Your task to perform on an android device: toggle show notifications on the lock screen Image 0: 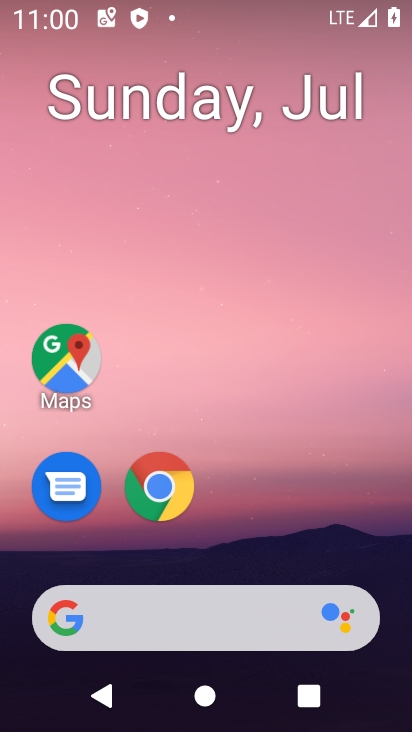
Step 0: press home button
Your task to perform on an android device: toggle show notifications on the lock screen Image 1: 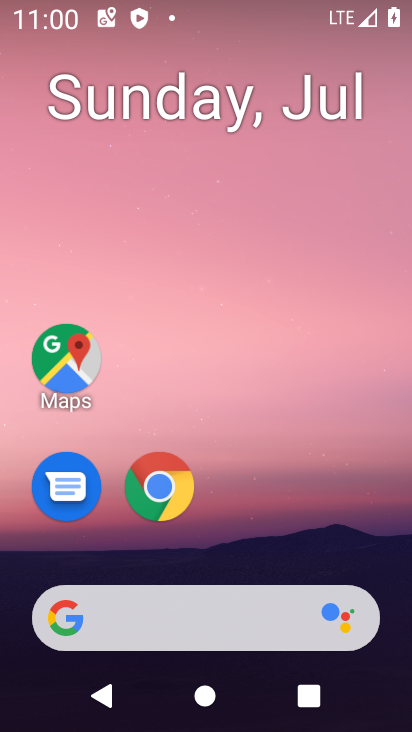
Step 1: drag from (375, 526) to (377, 40)
Your task to perform on an android device: toggle show notifications on the lock screen Image 2: 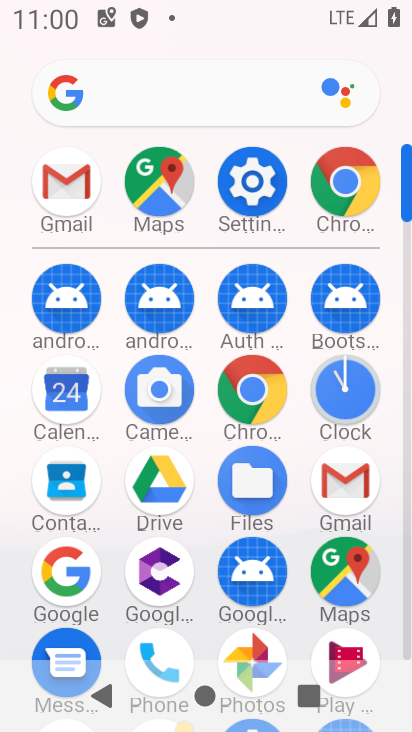
Step 2: click (257, 188)
Your task to perform on an android device: toggle show notifications on the lock screen Image 3: 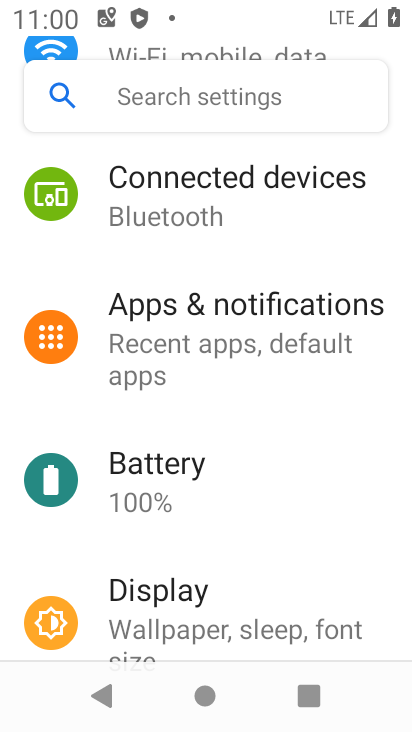
Step 3: drag from (343, 478) to (342, 365)
Your task to perform on an android device: toggle show notifications on the lock screen Image 4: 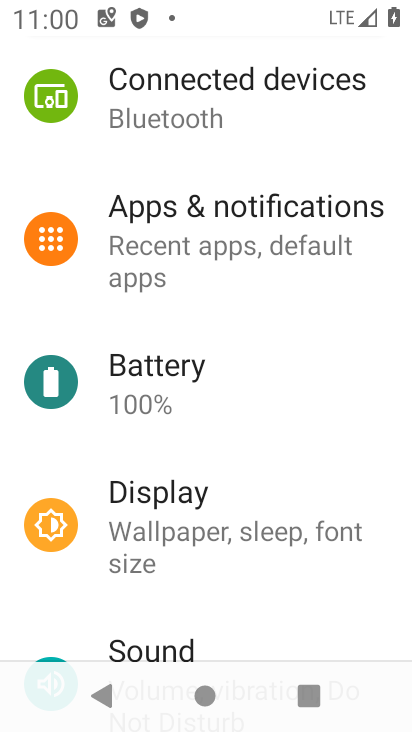
Step 4: drag from (343, 578) to (342, 459)
Your task to perform on an android device: toggle show notifications on the lock screen Image 5: 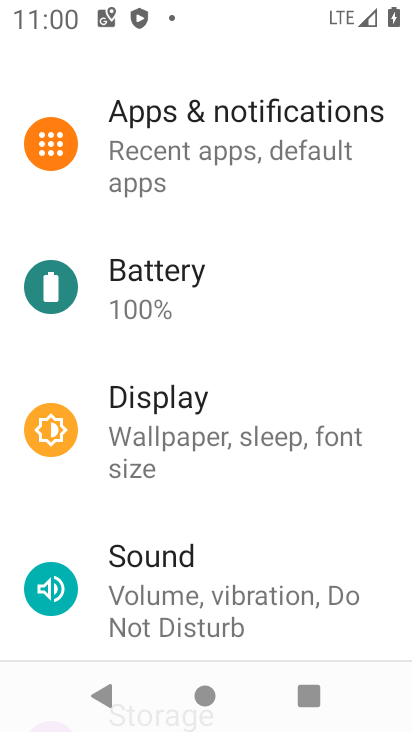
Step 5: drag from (364, 630) to (356, 433)
Your task to perform on an android device: toggle show notifications on the lock screen Image 6: 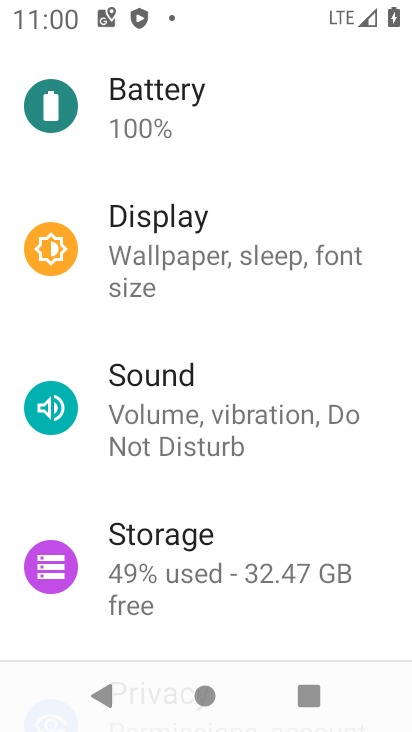
Step 6: drag from (355, 625) to (359, 472)
Your task to perform on an android device: toggle show notifications on the lock screen Image 7: 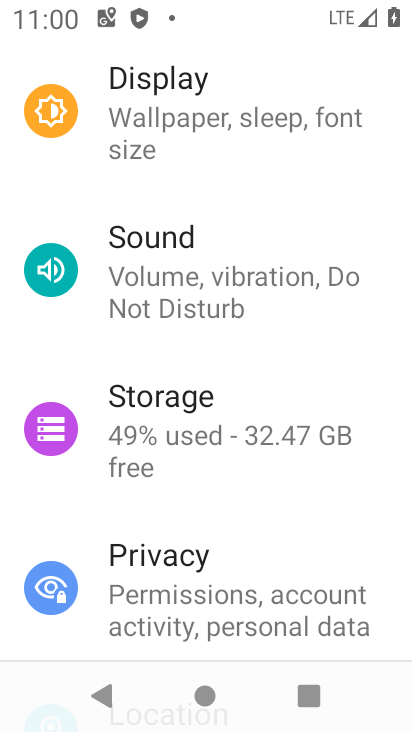
Step 7: drag from (385, 186) to (365, 325)
Your task to perform on an android device: toggle show notifications on the lock screen Image 8: 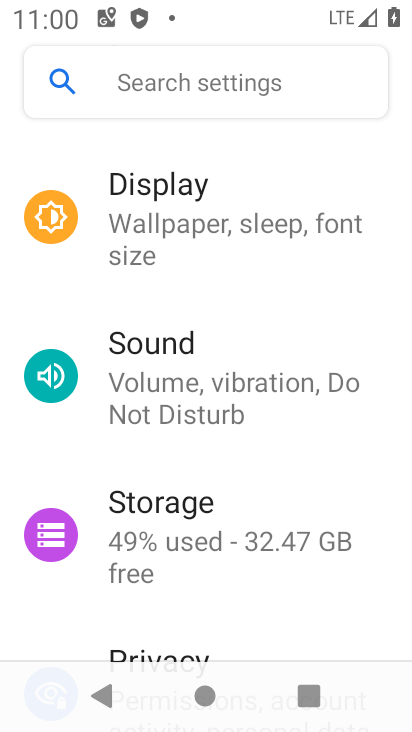
Step 8: drag from (366, 151) to (364, 338)
Your task to perform on an android device: toggle show notifications on the lock screen Image 9: 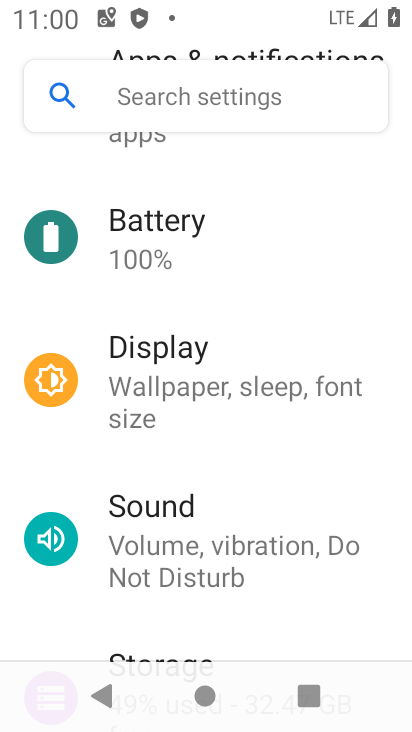
Step 9: drag from (342, 202) to (336, 391)
Your task to perform on an android device: toggle show notifications on the lock screen Image 10: 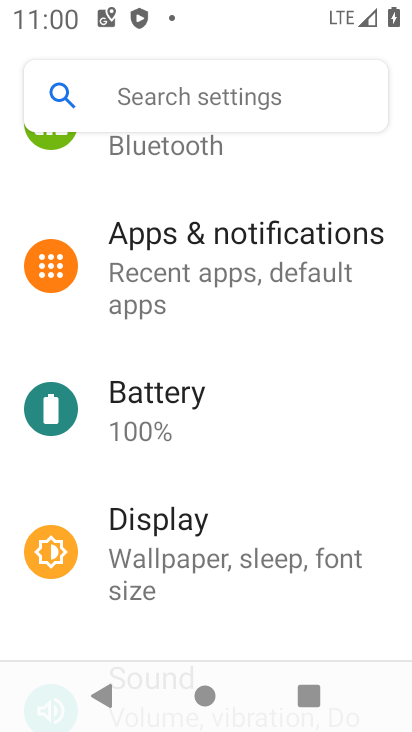
Step 10: drag from (345, 276) to (328, 473)
Your task to perform on an android device: toggle show notifications on the lock screen Image 11: 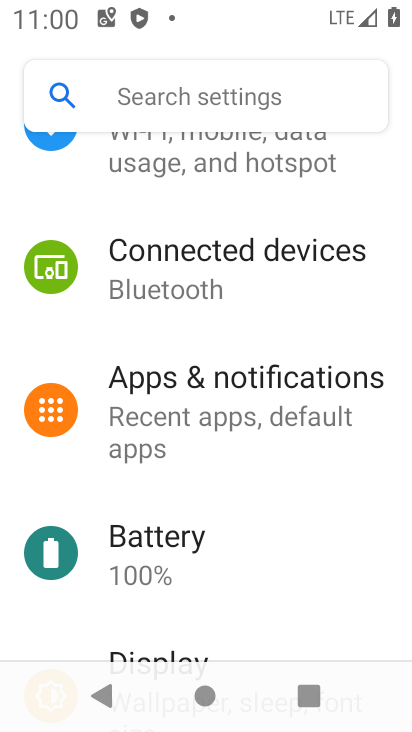
Step 11: drag from (352, 275) to (352, 490)
Your task to perform on an android device: toggle show notifications on the lock screen Image 12: 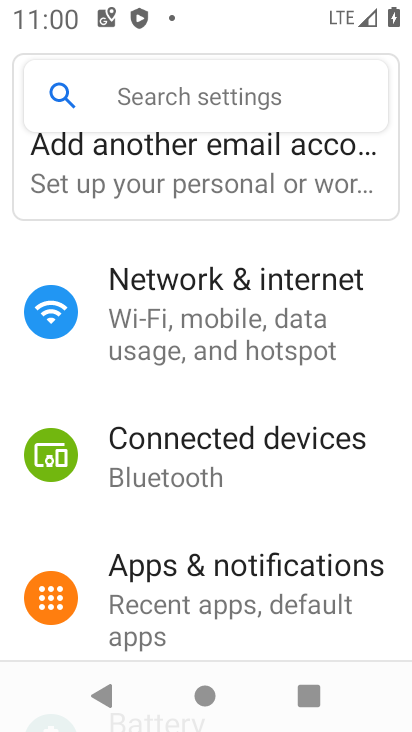
Step 12: drag from (363, 235) to (360, 434)
Your task to perform on an android device: toggle show notifications on the lock screen Image 13: 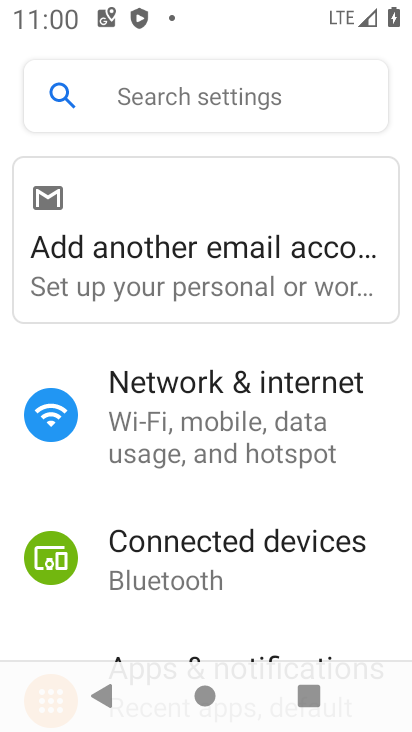
Step 13: drag from (359, 499) to (372, 378)
Your task to perform on an android device: toggle show notifications on the lock screen Image 14: 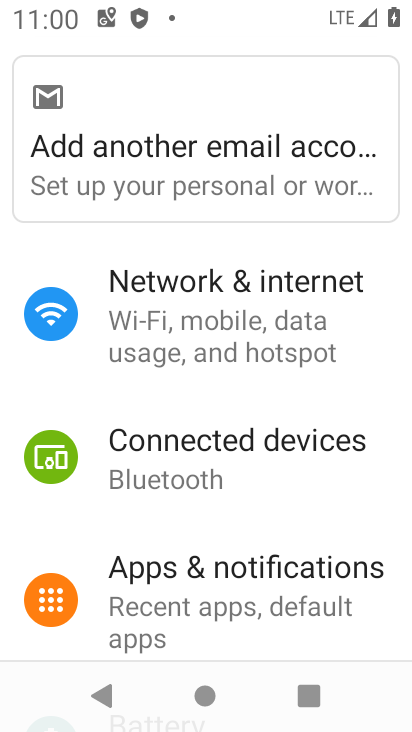
Step 14: drag from (353, 525) to (347, 374)
Your task to perform on an android device: toggle show notifications on the lock screen Image 15: 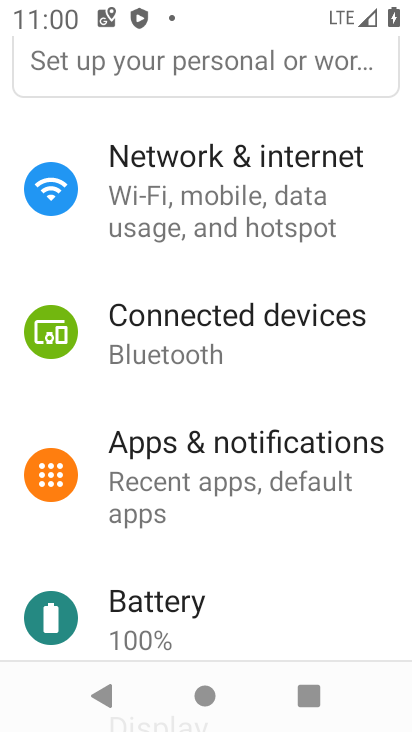
Step 15: drag from (313, 548) to (312, 298)
Your task to perform on an android device: toggle show notifications on the lock screen Image 16: 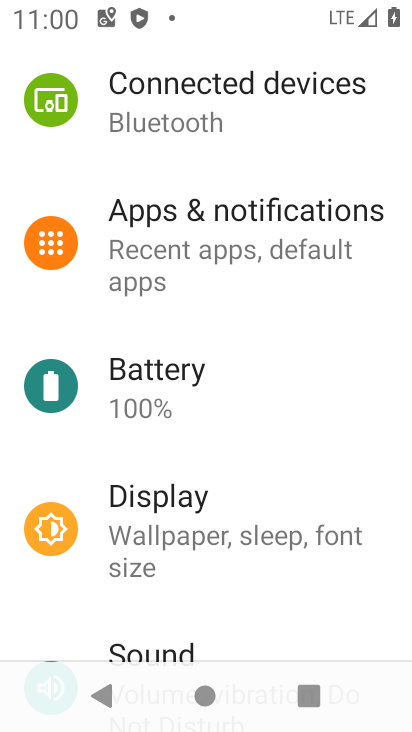
Step 16: click (296, 251)
Your task to perform on an android device: toggle show notifications on the lock screen Image 17: 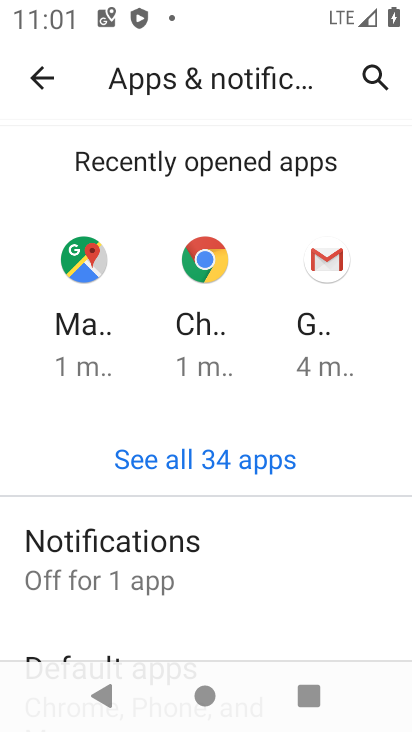
Step 17: drag from (274, 516) to (278, 348)
Your task to perform on an android device: toggle show notifications on the lock screen Image 18: 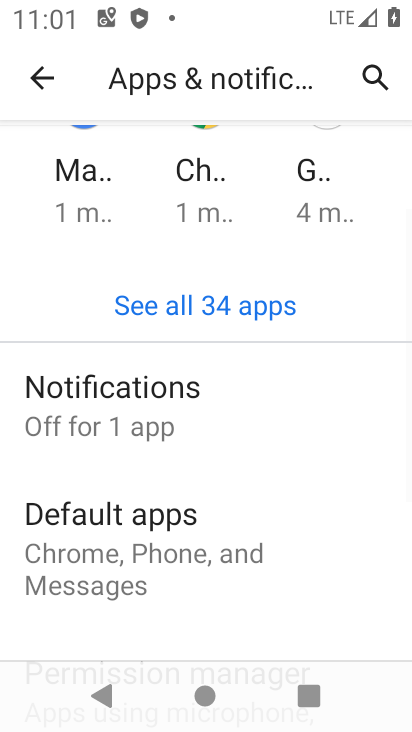
Step 18: drag from (304, 547) to (303, 404)
Your task to perform on an android device: toggle show notifications on the lock screen Image 19: 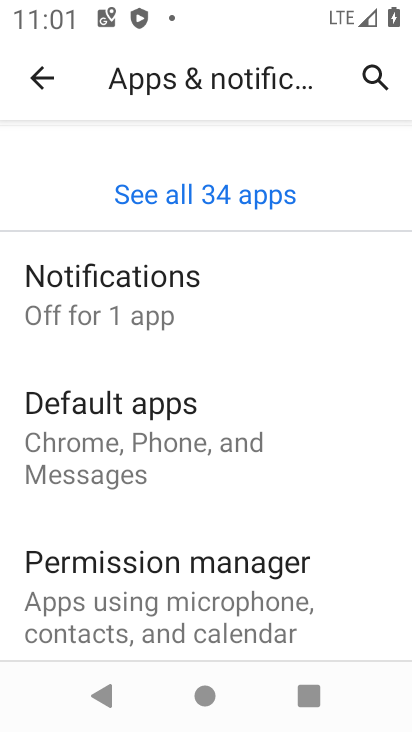
Step 19: click (211, 319)
Your task to perform on an android device: toggle show notifications on the lock screen Image 20: 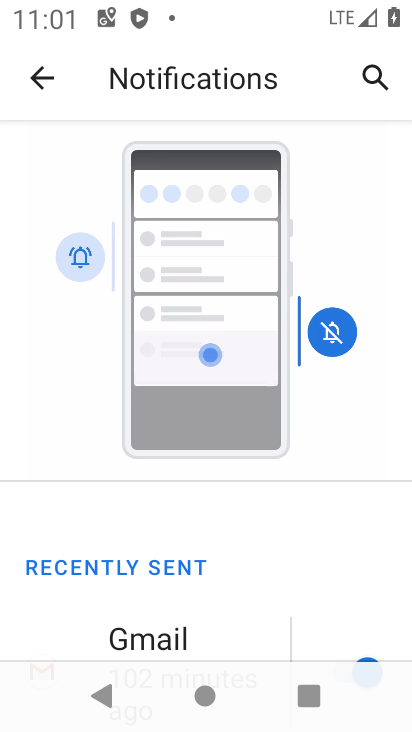
Step 20: drag from (255, 551) to (257, 337)
Your task to perform on an android device: toggle show notifications on the lock screen Image 21: 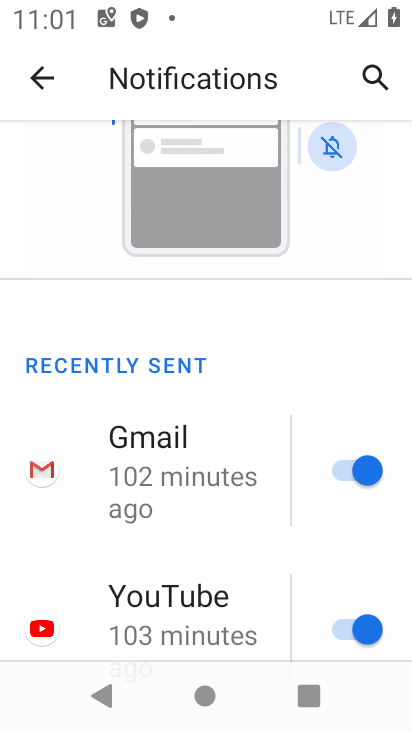
Step 21: drag from (272, 569) to (273, 375)
Your task to perform on an android device: toggle show notifications on the lock screen Image 22: 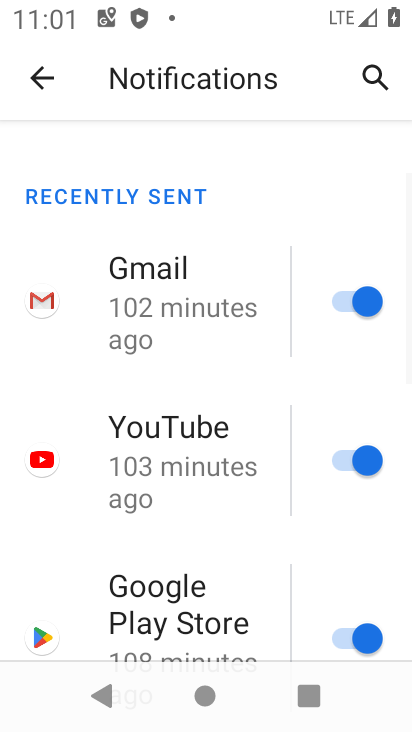
Step 22: drag from (238, 594) to (240, 397)
Your task to perform on an android device: toggle show notifications on the lock screen Image 23: 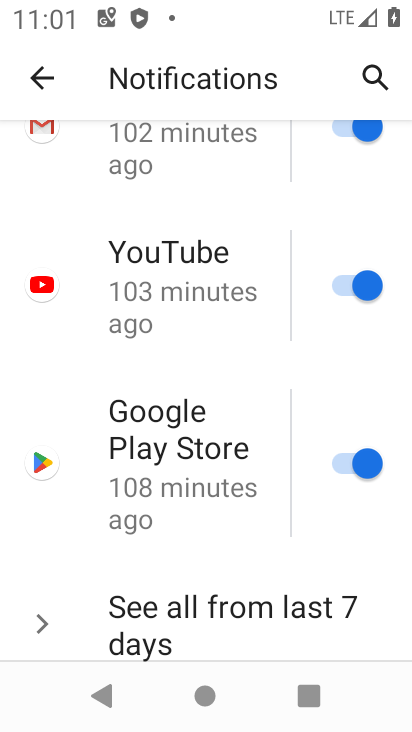
Step 23: drag from (248, 626) to (252, 400)
Your task to perform on an android device: toggle show notifications on the lock screen Image 24: 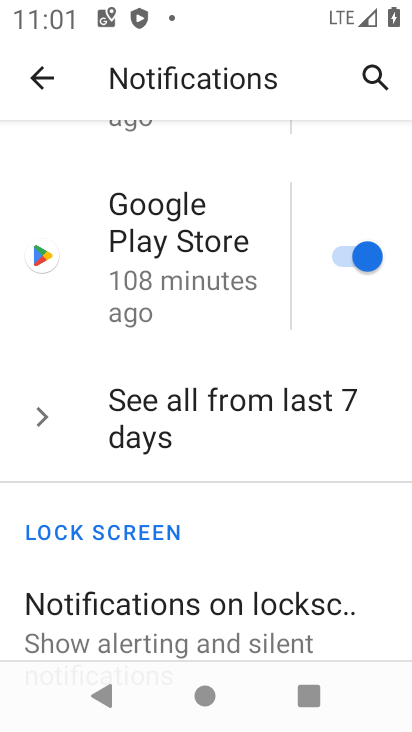
Step 24: drag from (263, 598) to (263, 418)
Your task to perform on an android device: toggle show notifications on the lock screen Image 25: 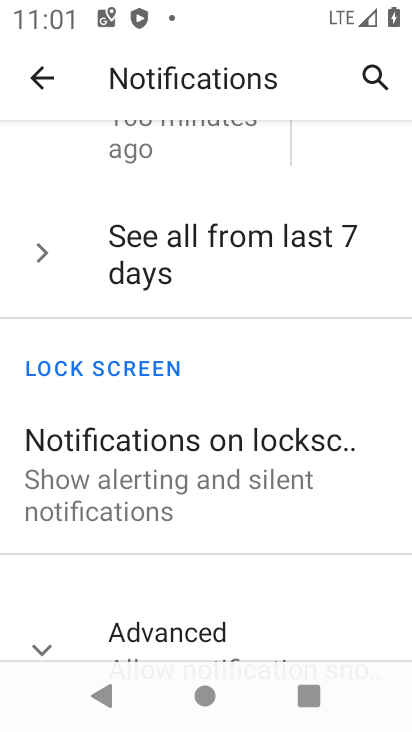
Step 25: click (213, 484)
Your task to perform on an android device: toggle show notifications on the lock screen Image 26: 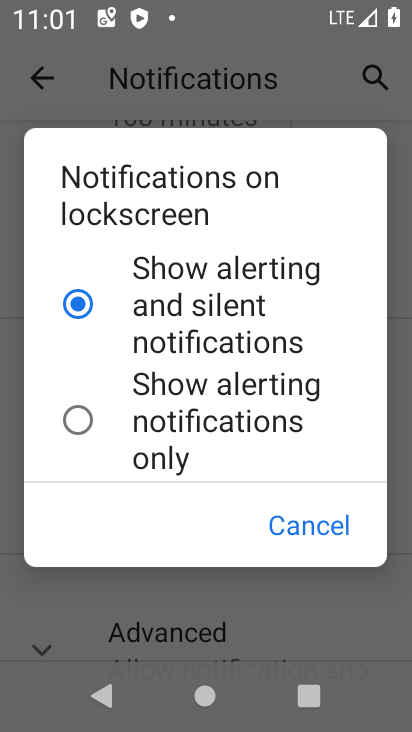
Step 26: click (236, 399)
Your task to perform on an android device: toggle show notifications on the lock screen Image 27: 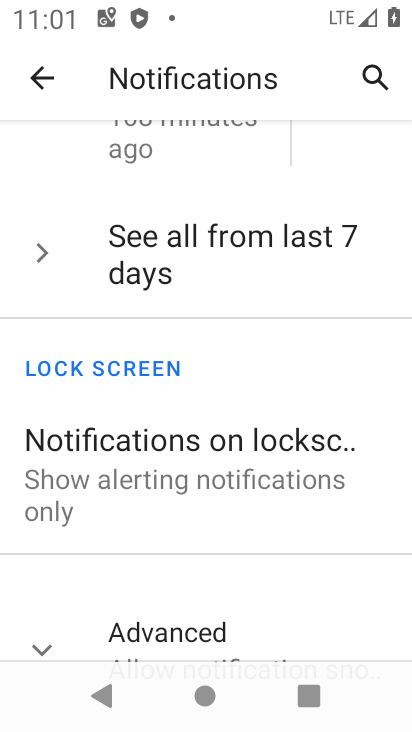
Step 27: drag from (261, 565) to (255, 283)
Your task to perform on an android device: toggle show notifications on the lock screen Image 28: 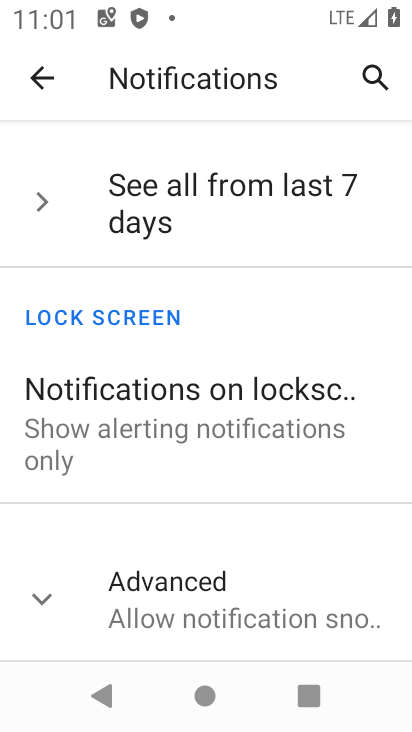
Step 28: click (285, 438)
Your task to perform on an android device: toggle show notifications on the lock screen Image 29: 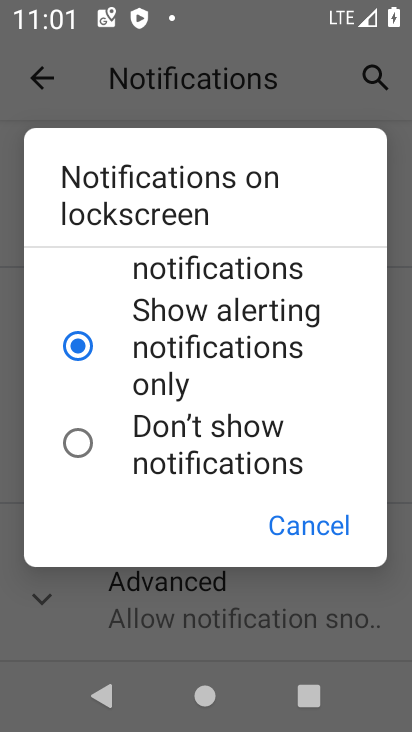
Step 29: task complete